Your task to perform on an android device: delete location history Image 0: 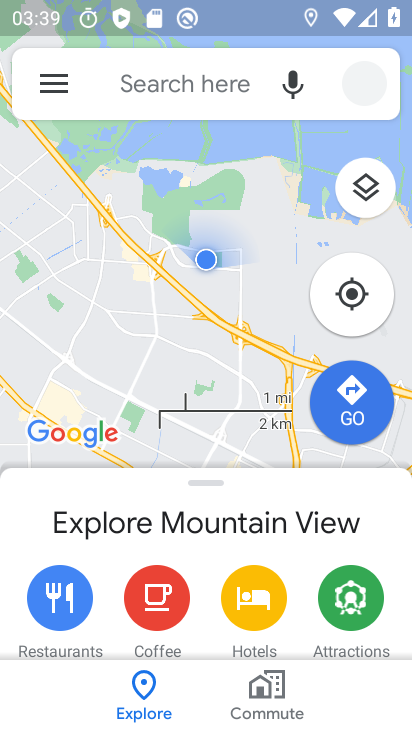
Step 0: press back button
Your task to perform on an android device: delete location history Image 1: 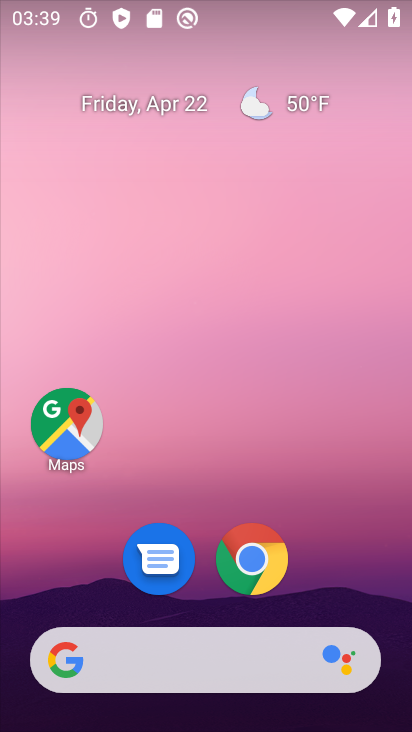
Step 1: drag from (209, 567) to (315, 66)
Your task to perform on an android device: delete location history Image 2: 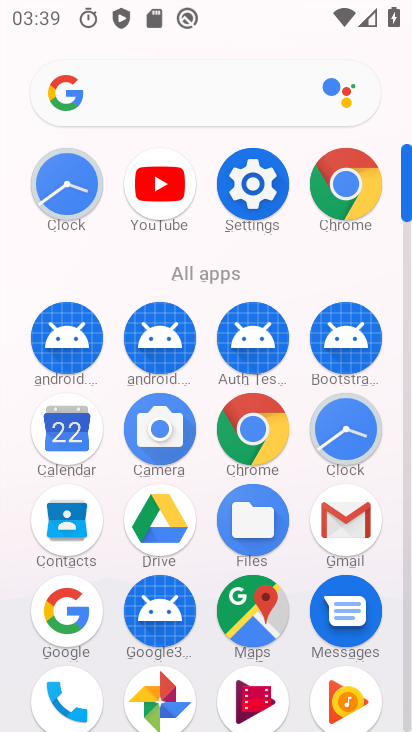
Step 2: click (247, 175)
Your task to perform on an android device: delete location history Image 3: 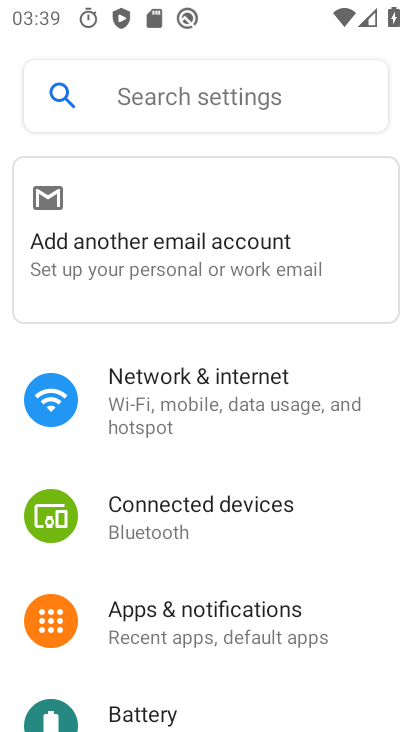
Step 3: drag from (192, 515) to (314, 132)
Your task to perform on an android device: delete location history Image 4: 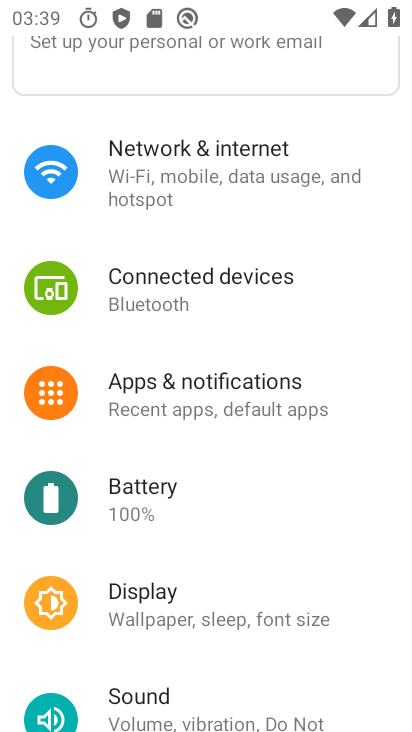
Step 4: drag from (157, 668) to (336, 194)
Your task to perform on an android device: delete location history Image 5: 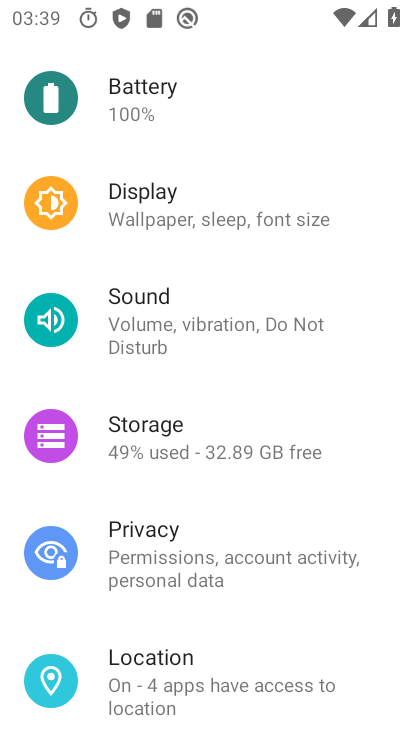
Step 5: drag from (176, 665) to (250, 416)
Your task to perform on an android device: delete location history Image 6: 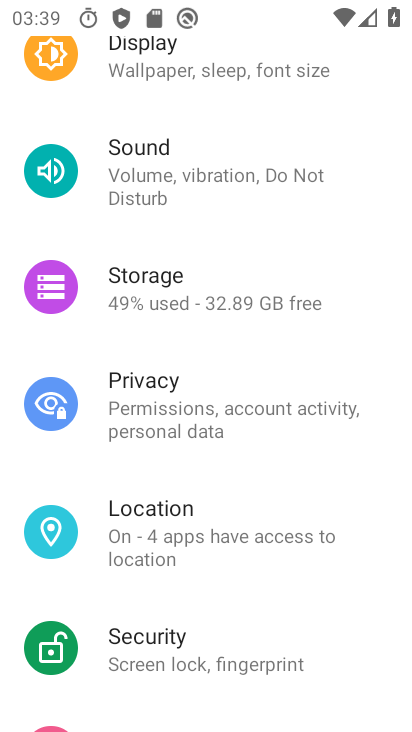
Step 6: click (210, 524)
Your task to perform on an android device: delete location history Image 7: 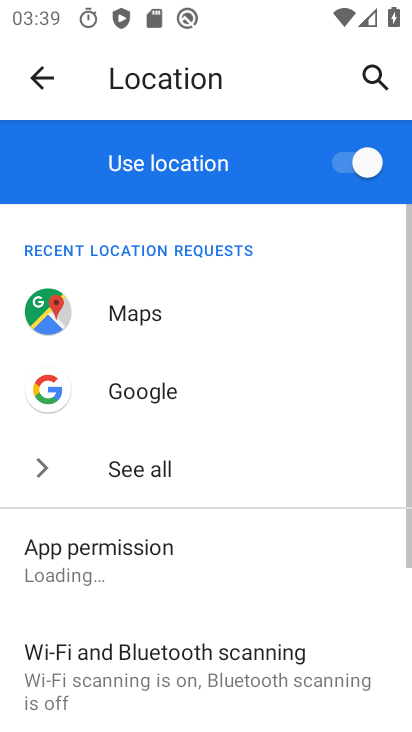
Step 7: drag from (119, 670) to (313, 295)
Your task to perform on an android device: delete location history Image 8: 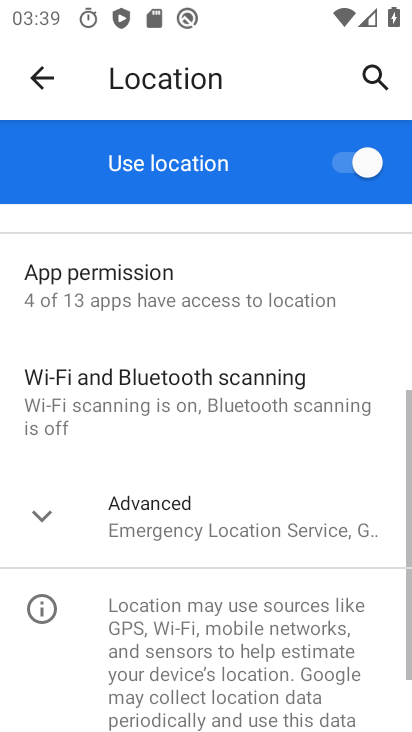
Step 8: click (173, 522)
Your task to perform on an android device: delete location history Image 9: 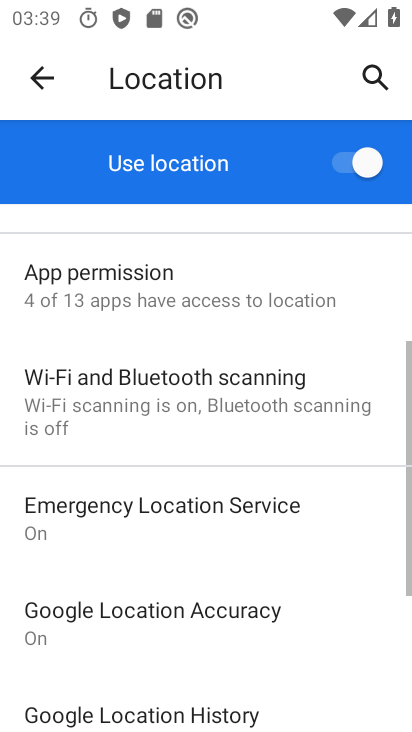
Step 9: drag from (198, 685) to (296, 455)
Your task to perform on an android device: delete location history Image 10: 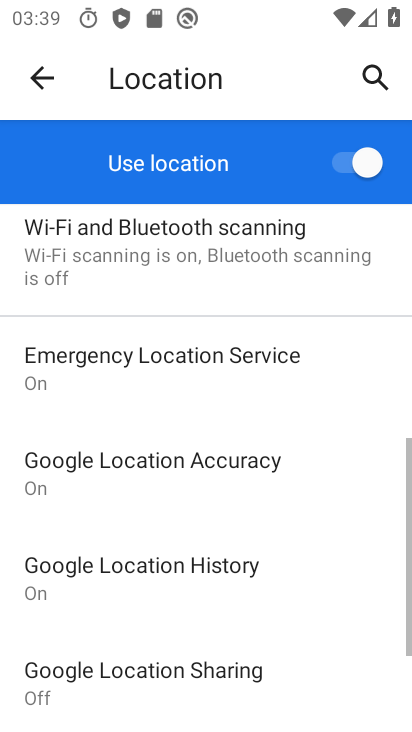
Step 10: click (257, 578)
Your task to perform on an android device: delete location history Image 11: 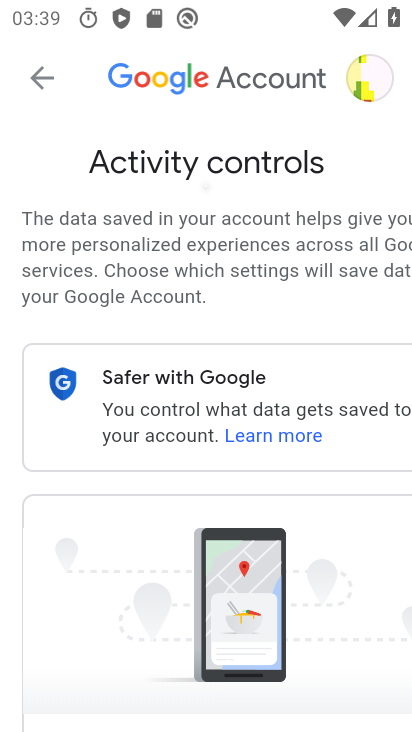
Step 11: drag from (134, 629) to (341, 68)
Your task to perform on an android device: delete location history Image 12: 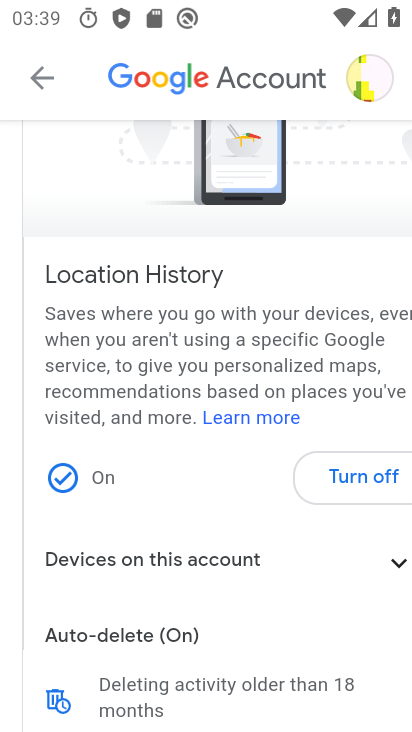
Step 12: click (225, 698)
Your task to perform on an android device: delete location history Image 13: 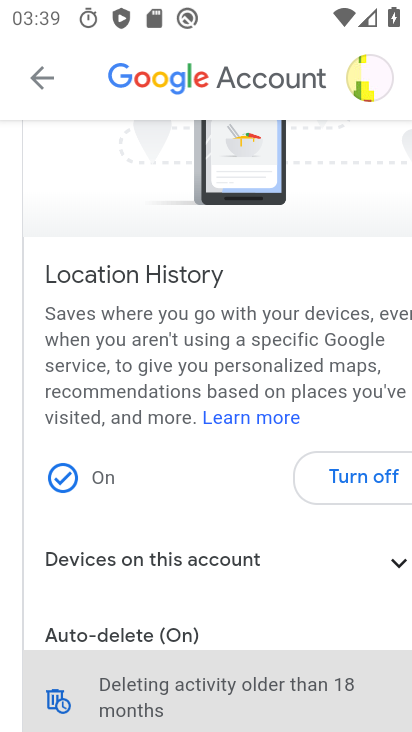
Step 13: drag from (236, 674) to (338, 252)
Your task to perform on an android device: delete location history Image 14: 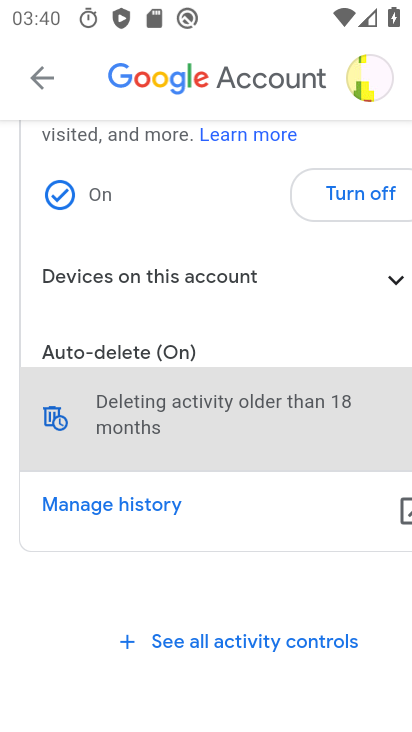
Step 14: click (178, 500)
Your task to perform on an android device: delete location history Image 15: 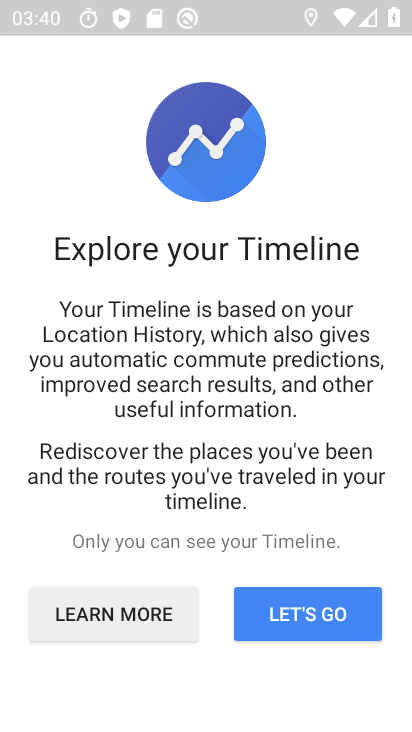
Step 15: click (311, 641)
Your task to perform on an android device: delete location history Image 16: 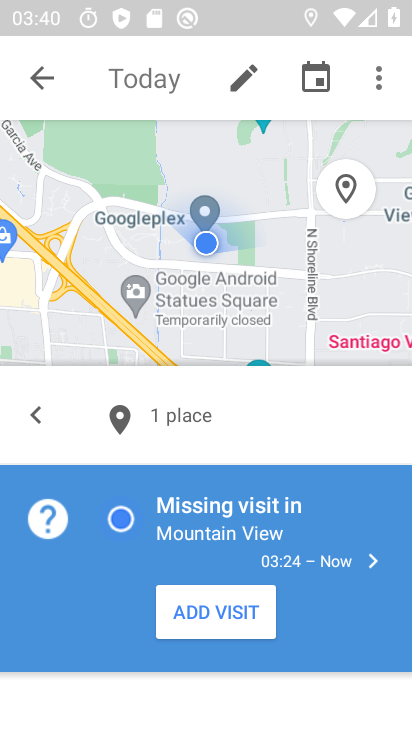
Step 16: click (388, 87)
Your task to perform on an android device: delete location history Image 17: 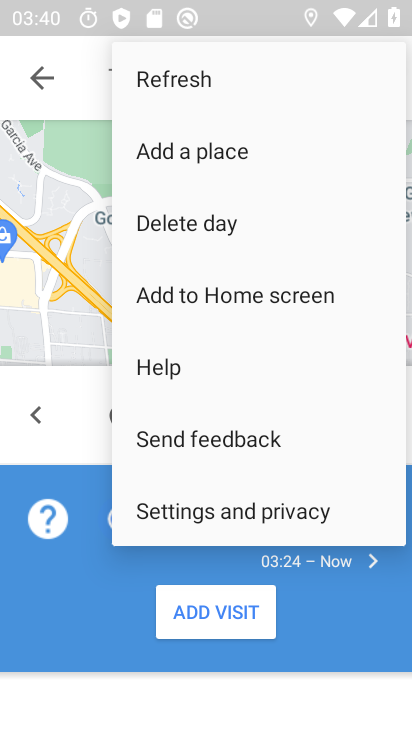
Step 17: click (310, 241)
Your task to perform on an android device: delete location history Image 18: 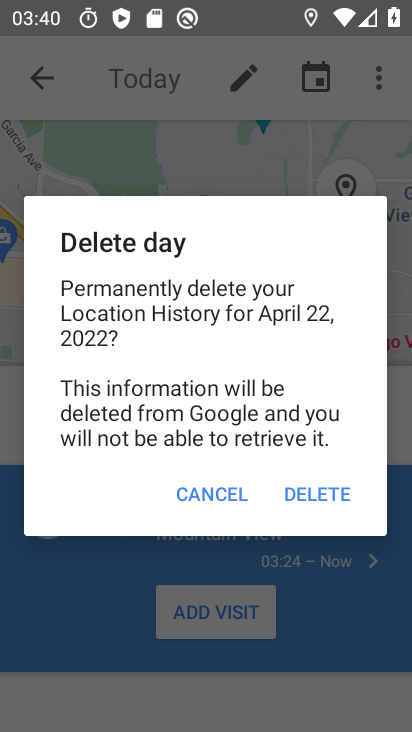
Step 18: click (326, 492)
Your task to perform on an android device: delete location history Image 19: 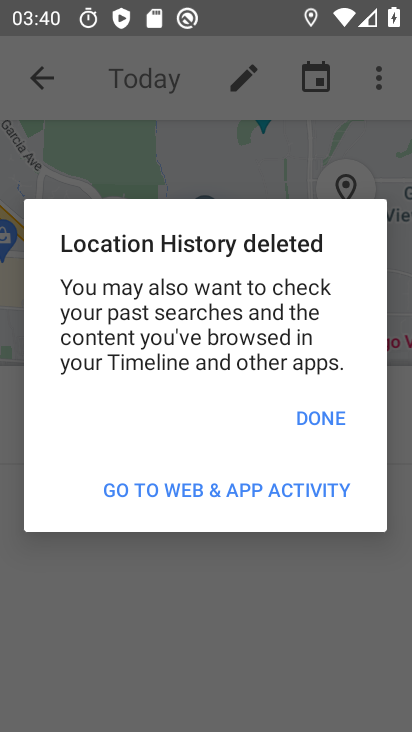
Step 19: click (333, 418)
Your task to perform on an android device: delete location history Image 20: 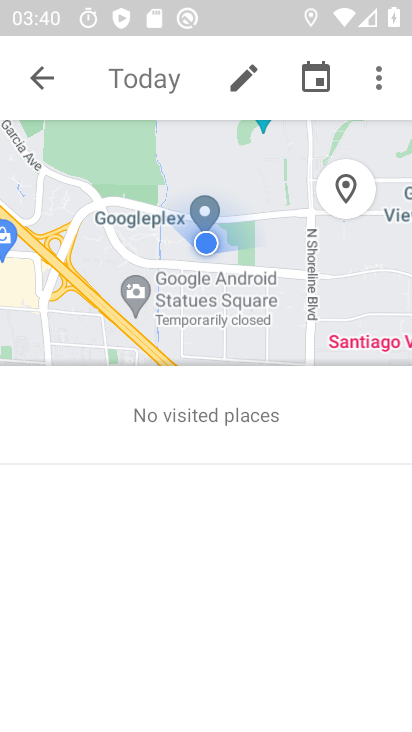
Step 20: task complete